Your task to perform on an android device: Go to location settings Image 0: 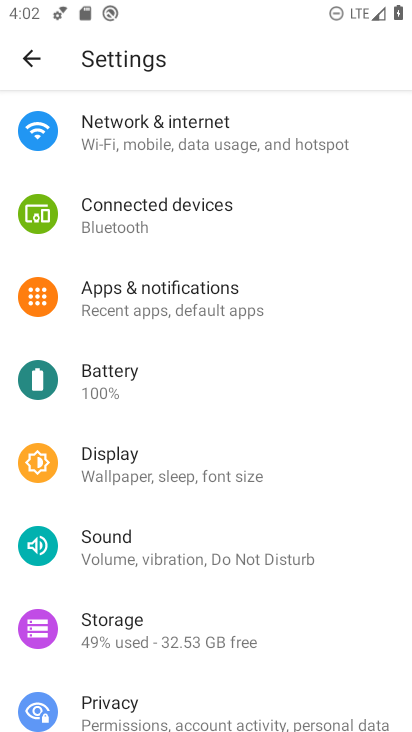
Step 0: drag from (253, 591) to (271, 145)
Your task to perform on an android device: Go to location settings Image 1: 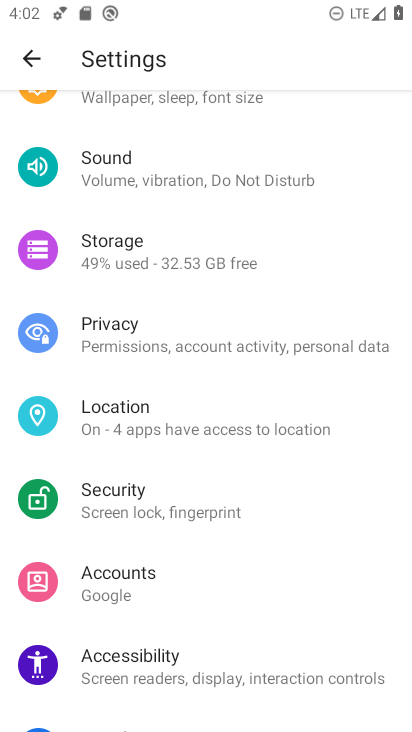
Step 1: drag from (182, 588) to (285, 102)
Your task to perform on an android device: Go to location settings Image 2: 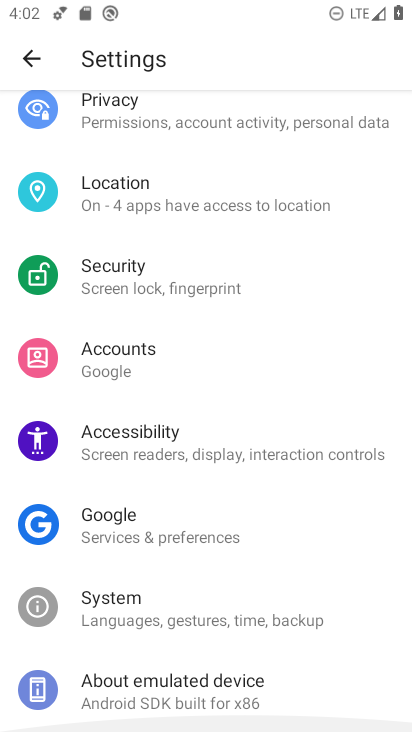
Step 2: drag from (267, 132) to (242, 360)
Your task to perform on an android device: Go to location settings Image 3: 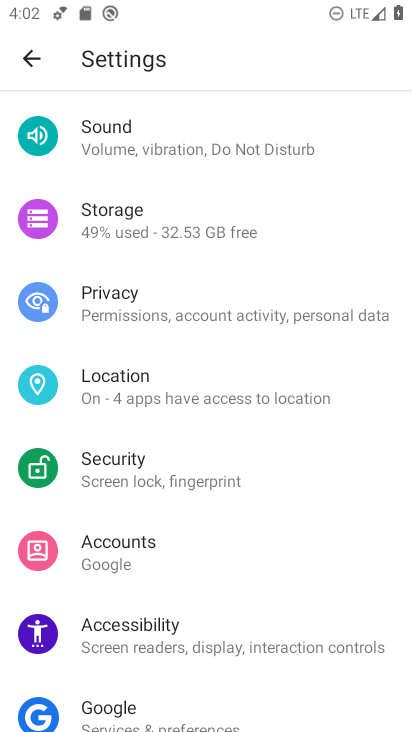
Step 3: click (195, 398)
Your task to perform on an android device: Go to location settings Image 4: 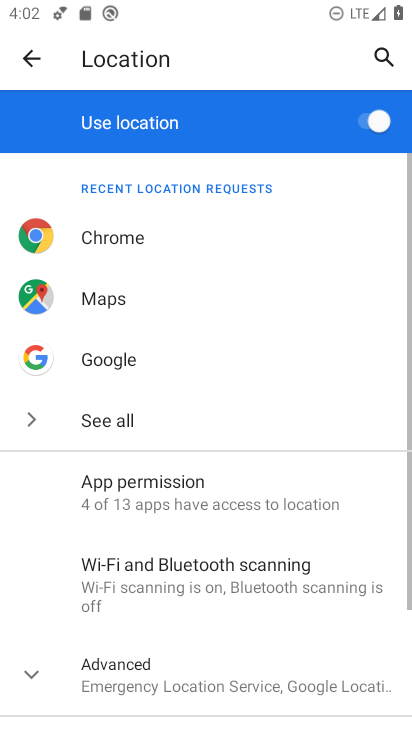
Step 4: task complete